Your task to perform on an android device: delete browsing data in the chrome app Image 0: 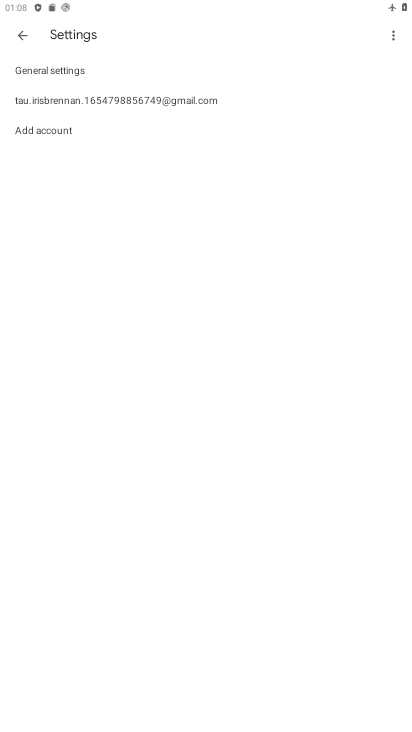
Step 0: press home button
Your task to perform on an android device: delete browsing data in the chrome app Image 1: 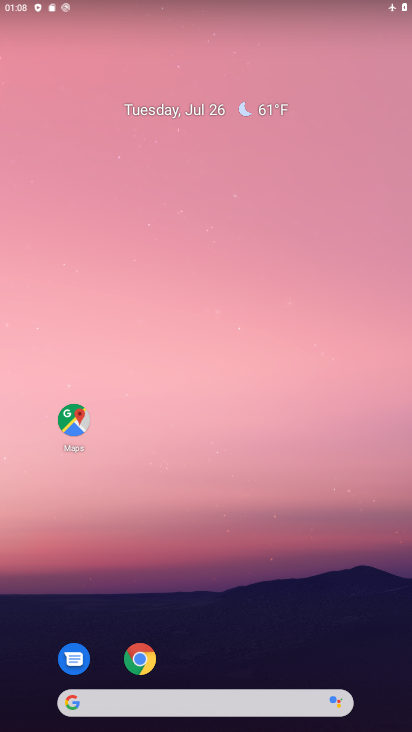
Step 1: click (145, 658)
Your task to perform on an android device: delete browsing data in the chrome app Image 2: 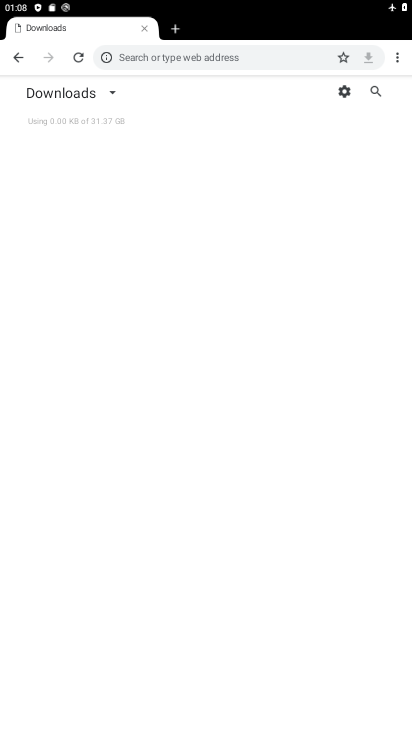
Step 2: task complete